Your task to perform on an android device: Open ESPN.com Image 0: 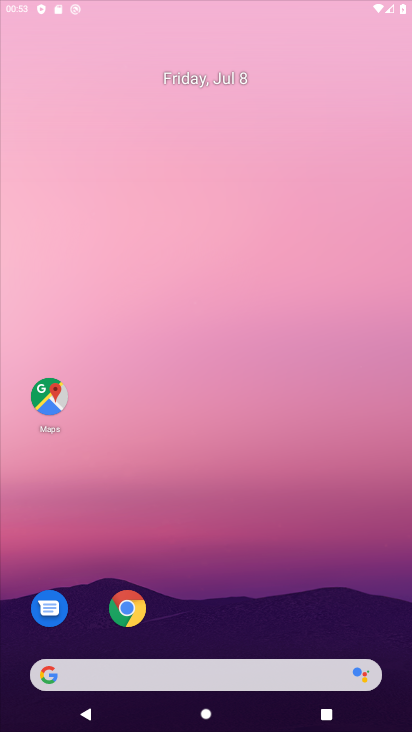
Step 0: press home button
Your task to perform on an android device: Open ESPN.com Image 1: 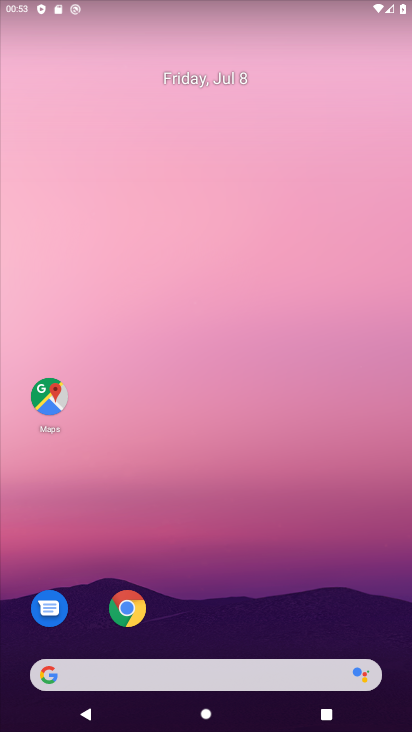
Step 1: drag from (282, 655) to (288, 154)
Your task to perform on an android device: Open ESPN.com Image 2: 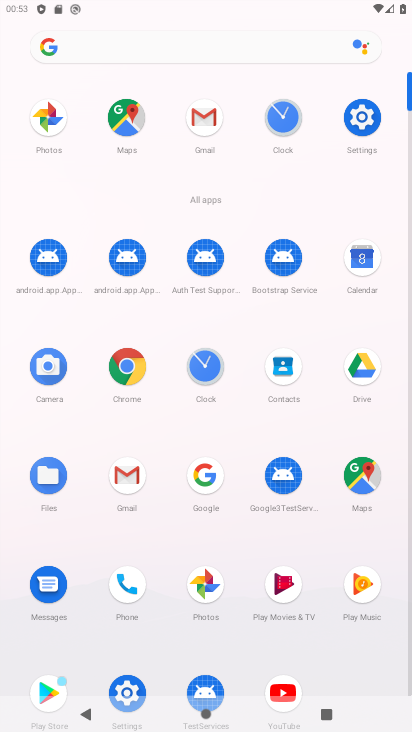
Step 2: click (113, 357)
Your task to perform on an android device: Open ESPN.com Image 3: 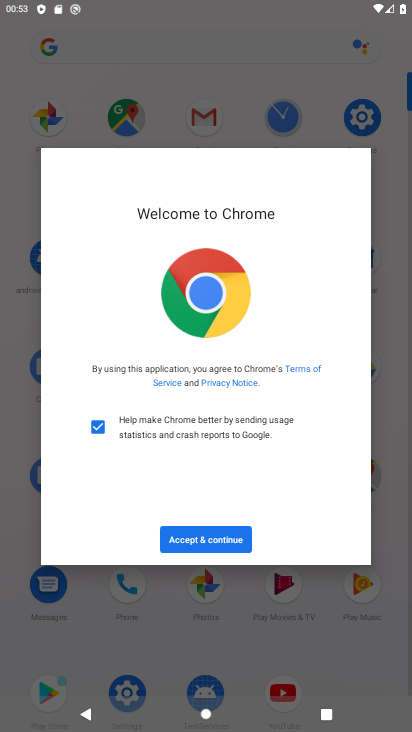
Step 3: click (211, 535)
Your task to perform on an android device: Open ESPN.com Image 4: 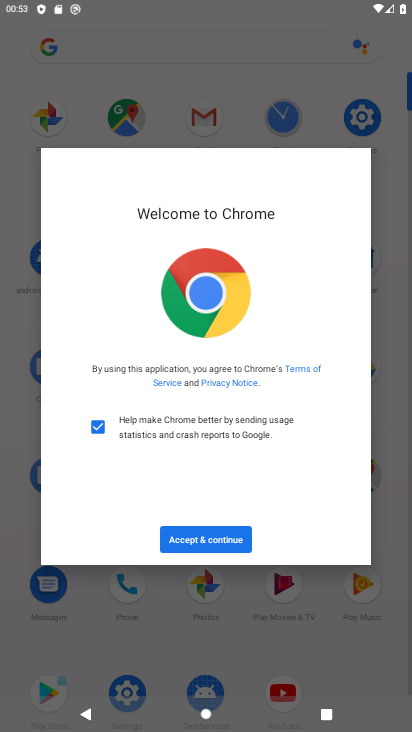
Step 4: click (211, 535)
Your task to perform on an android device: Open ESPN.com Image 5: 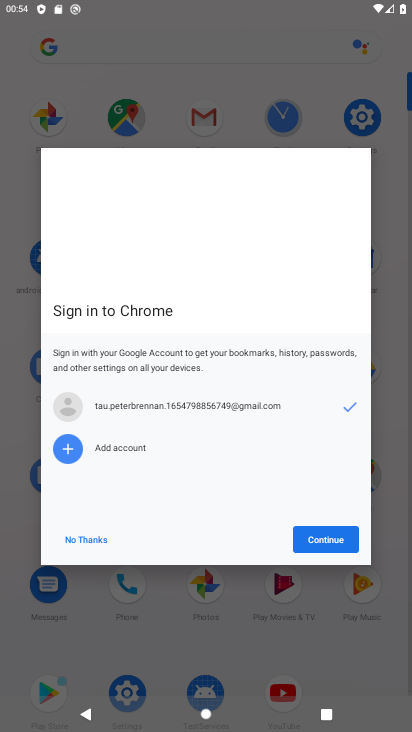
Step 5: click (308, 537)
Your task to perform on an android device: Open ESPN.com Image 6: 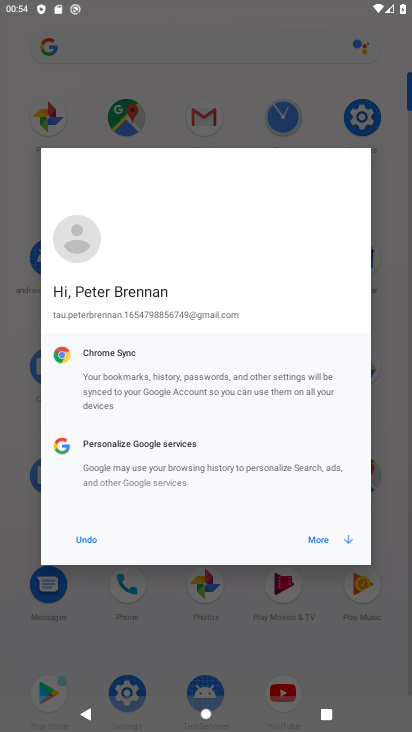
Step 6: click (313, 539)
Your task to perform on an android device: Open ESPN.com Image 7: 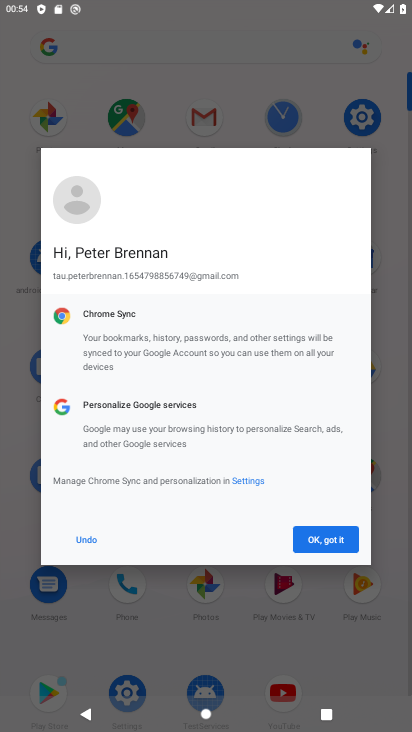
Step 7: click (329, 550)
Your task to perform on an android device: Open ESPN.com Image 8: 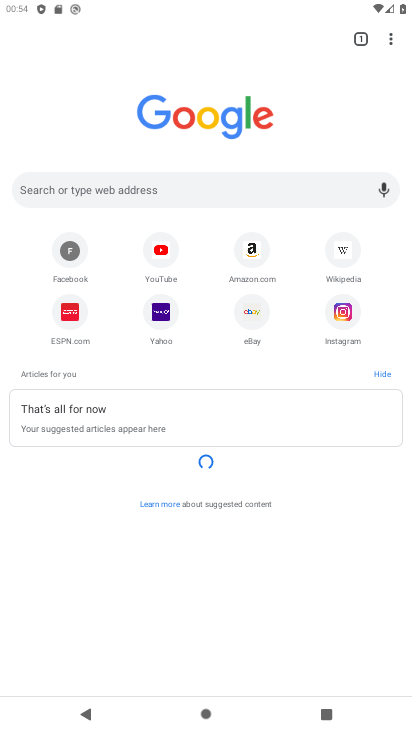
Step 8: drag from (394, 35) to (315, 371)
Your task to perform on an android device: Open ESPN.com Image 9: 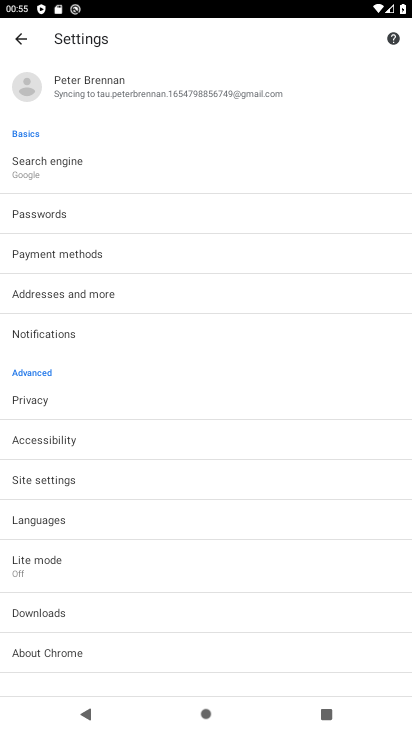
Step 9: press back button
Your task to perform on an android device: Open ESPN.com Image 10: 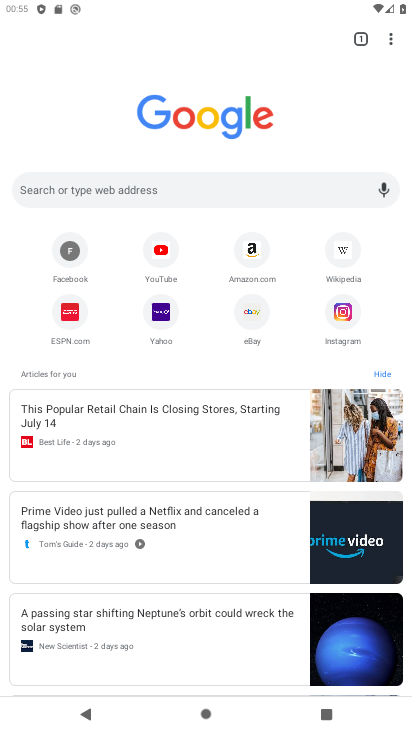
Step 10: click (64, 305)
Your task to perform on an android device: Open ESPN.com Image 11: 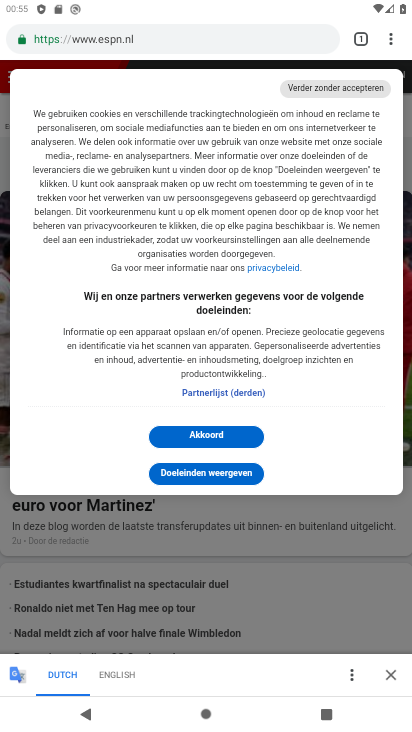
Step 11: task complete